Your task to perform on an android device: Turn on the flashlight Image 0: 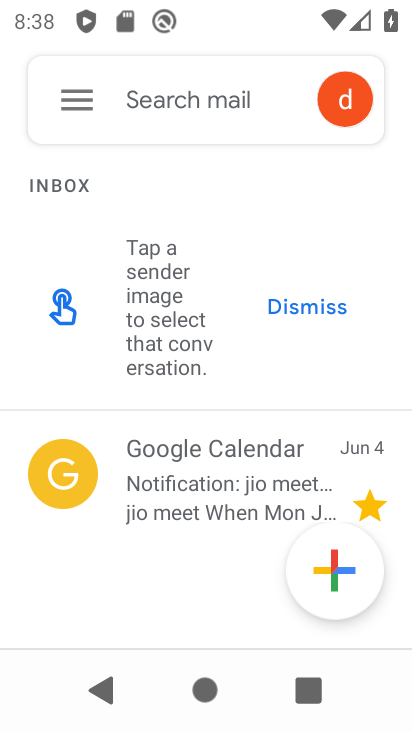
Step 0: drag from (259, 6) to (167, 307)
Your task to perform on an android device: Turn on the flashlight Image 1: 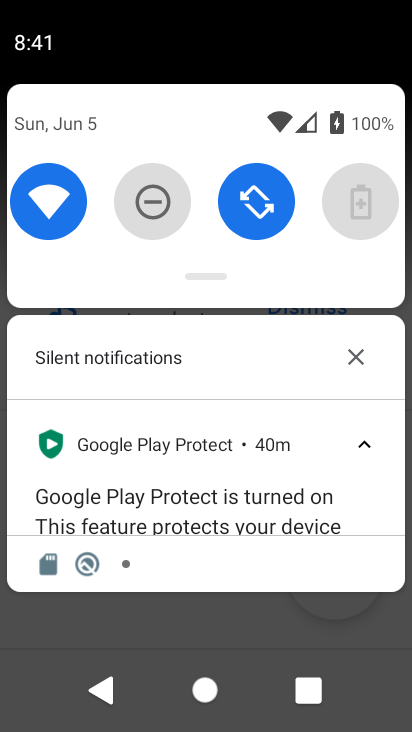
Step 1: task complete